Your task to perform on an android device: Go to Amazon Image 0: 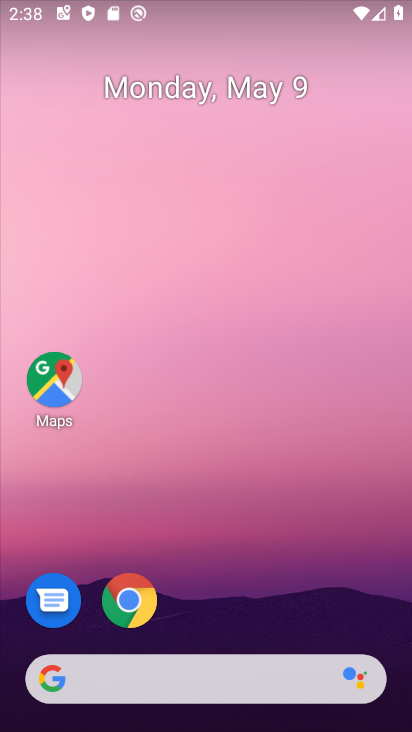
Step 0: click (135, 606)
Your task to perform on an android device: Go to Amazon Image 1: 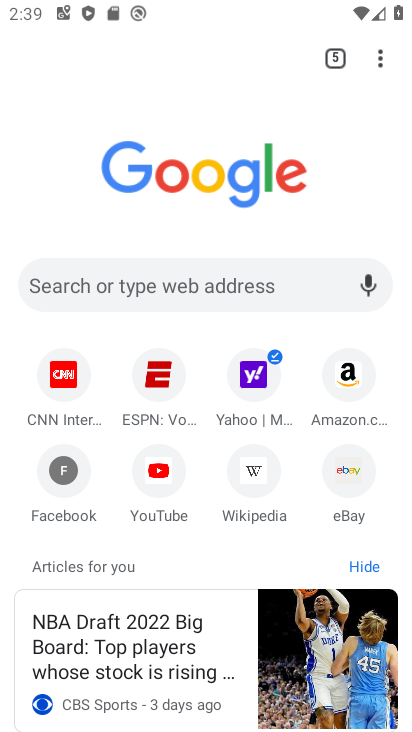
Step 1: click (342, 365)
Your task to perform on an android device: Go to Amazon Image 2: 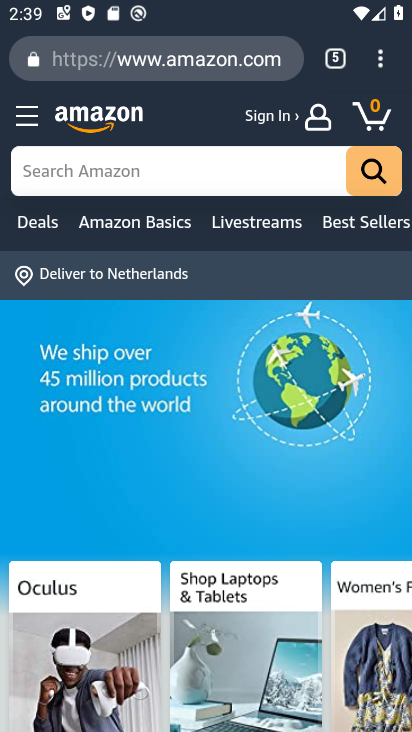
Step 2: task complete